Your task to perform on an android device: Go to Google maps Image 0: 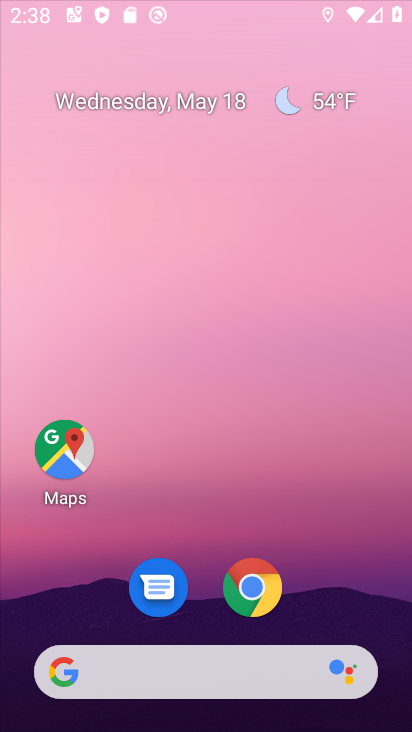
Step 0: drag from (212, 633) to (225, 193)
Your task to perform on an android device: Go to Google maps Image 1: 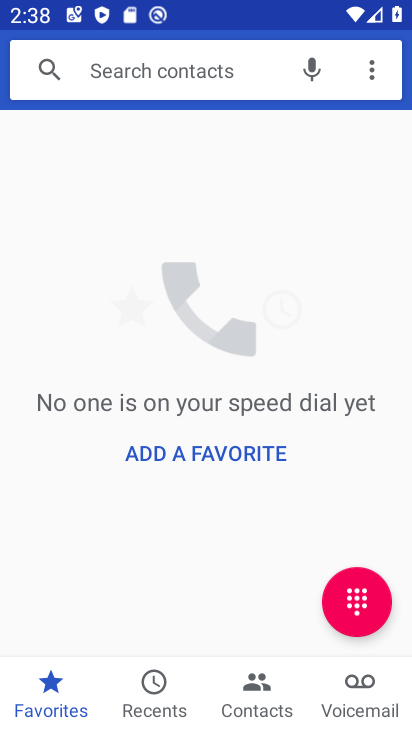
Step 1: drag from (251, 584) to (255, 196)
Your task to perform on an android device: Go to Google maps Image 2: 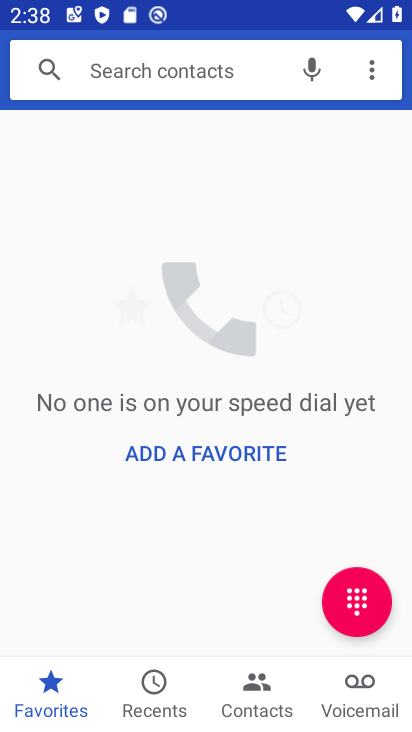
Step 2: press home button
Your task to perform on an android device: Go to Google maps Image 3: 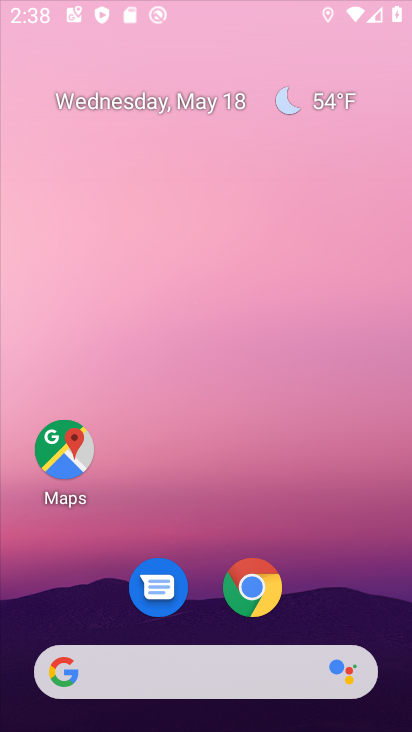
Step 3: drag from (157, 639) to (215, 173)
Your task to perform on an android device: Go to Google maps Image 4: 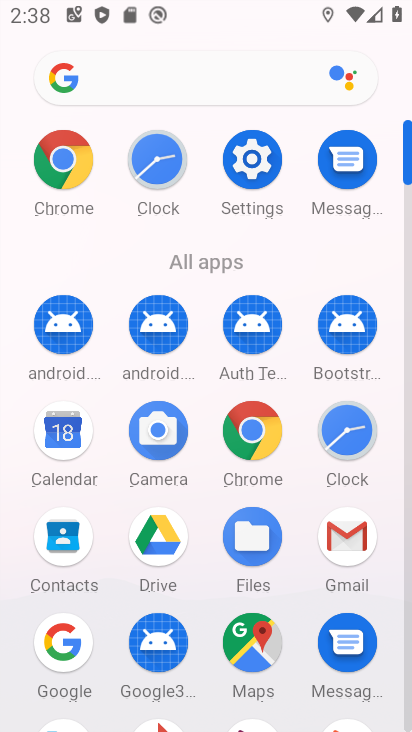
Step 4: click (249, 653)
Your task to perform on an android device: Go to Google maps Image 5: 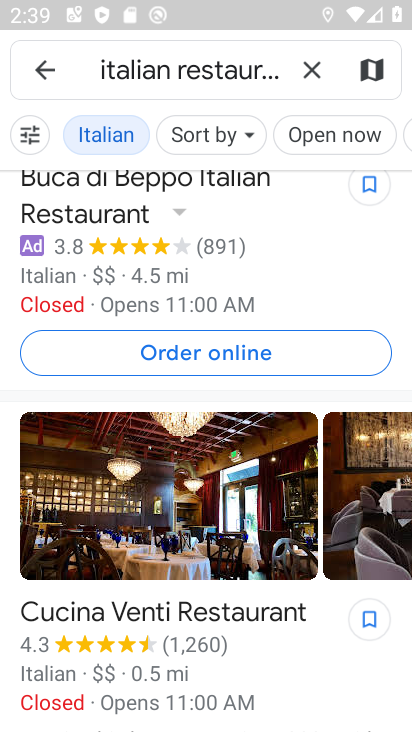
Step 5: task complete